Your task to perform on an android device: set the stopwatch Image 0: 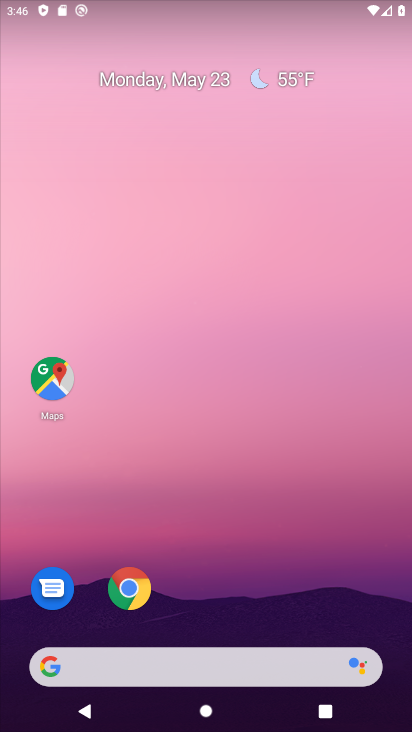
Step 0: drag from (257, 159) to (264, 106)
Your task to perform on an android device: set the stopwatch Image 1: 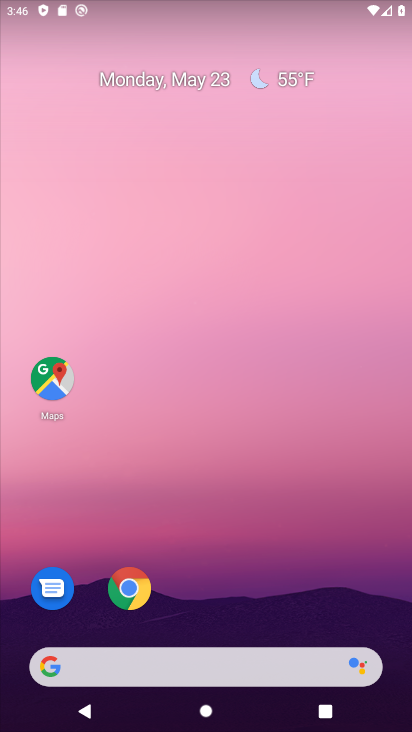
Step 1: drag from (270, 599) to (297, 92)
Your task to perform on an android device: set the stopwatch Image 2: 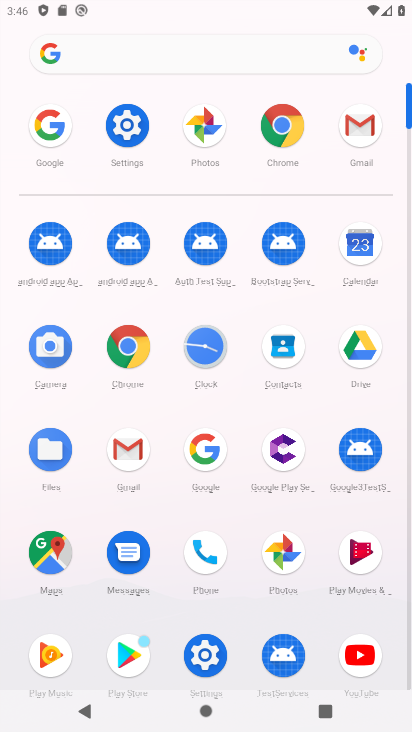
Step 2: click (206, 348)
Your task to perform on an android device: set the stopwatch Image 3: 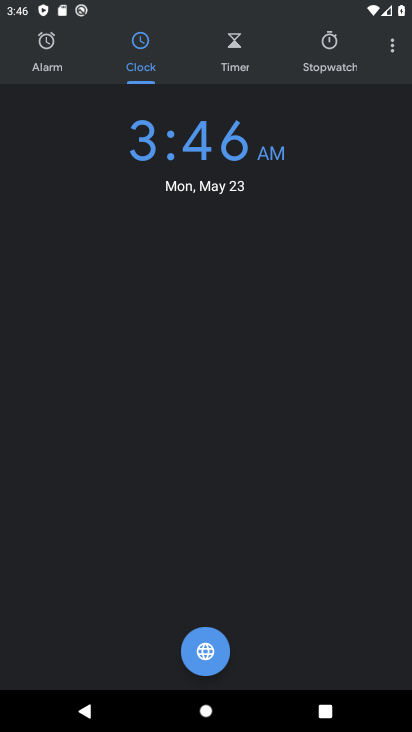
Step 3: click (323, 39)
Your task to perform on an android device: set the stopwatch Image 4: 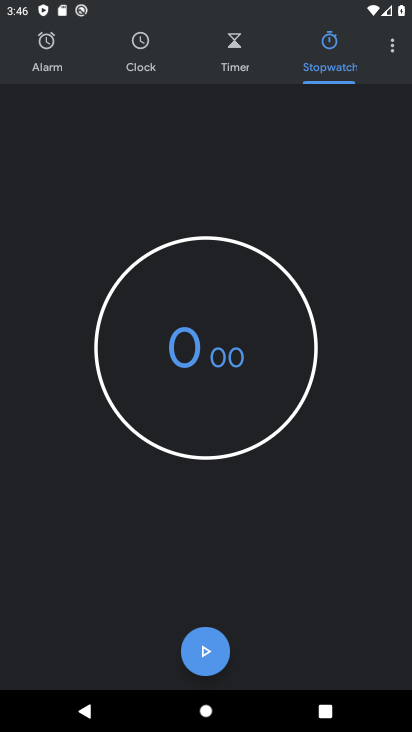
Step 4: click (215, 653)
Your task to perform on an android device: set the stopwatch Image 5: 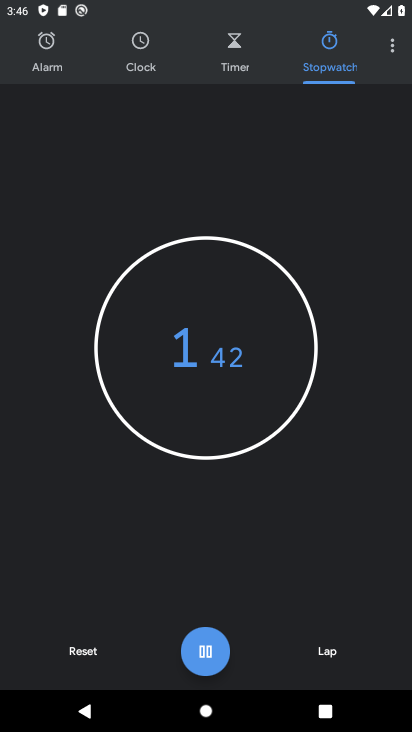
Step 5: click (215, 653)
Your task to perform on an android device: set the stopwatch Image 6: 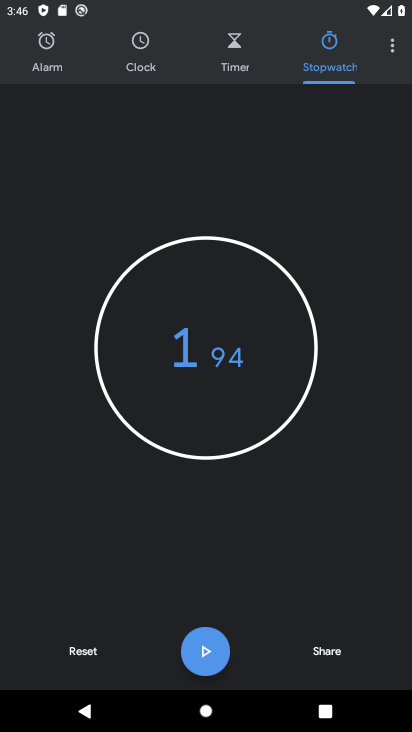
Step 6: task complete